Your task to perform on an android device: Open wifi settings Image 0: 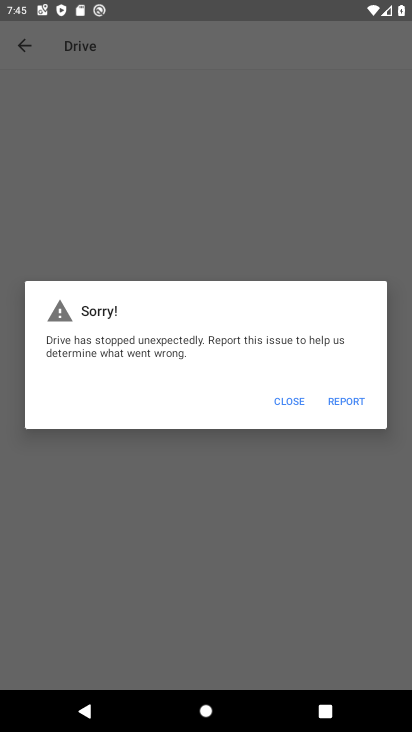
Step 0: press home button
Your task to perform on an android device: Open wifi settings Image 1: 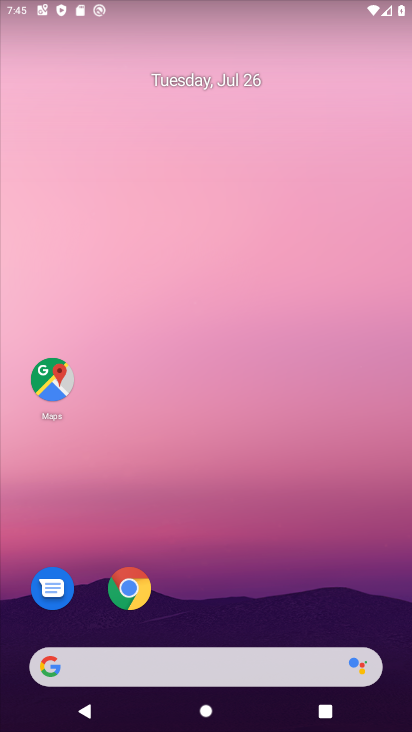
Step 1: drag from (273, 620) to (283, 245)
Your task to perform on an android device: Open wifi settings Image 2: 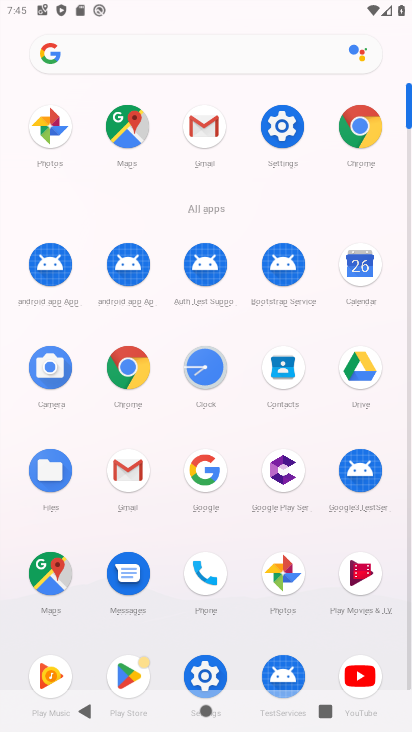
Step 2: click (291, 130)
Your task to perform on an android device: Open wifi settings Image 3: 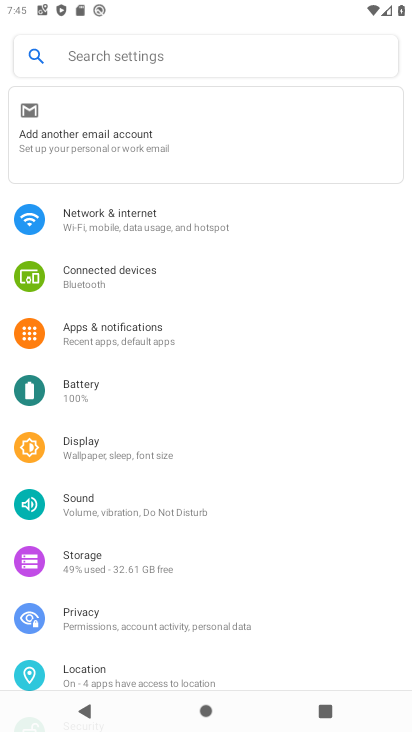
Step 3: click (80, 225)
Your task to perform on an android device: Open wifi settings Image 4: 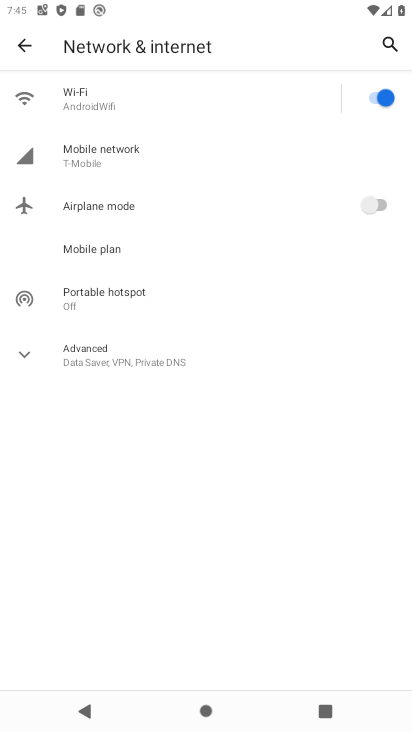
Step 4: task complete